Your task to perform on an android device: When is my next meeting? Image 0: 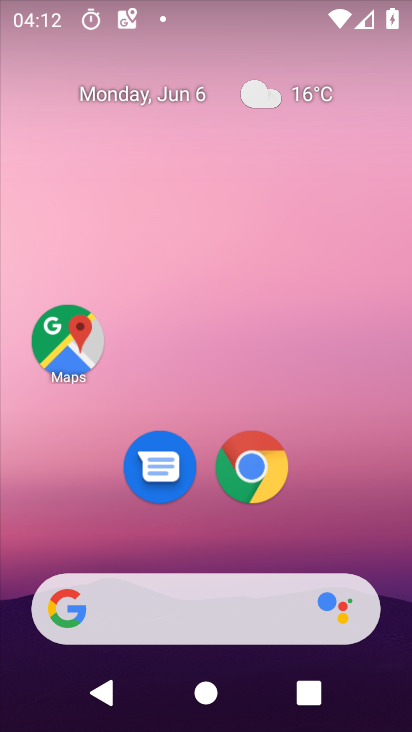
Step 0: press home button
Your task to perform on an android device: When is my next meeting? Image 1: 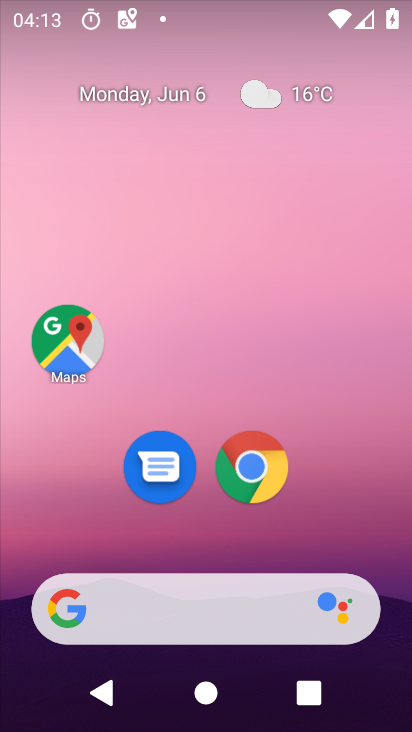
Step 1: drag from (209, 558) to (199, 149)
Your task to perform on an android device: When is my next meeting? Image 2: 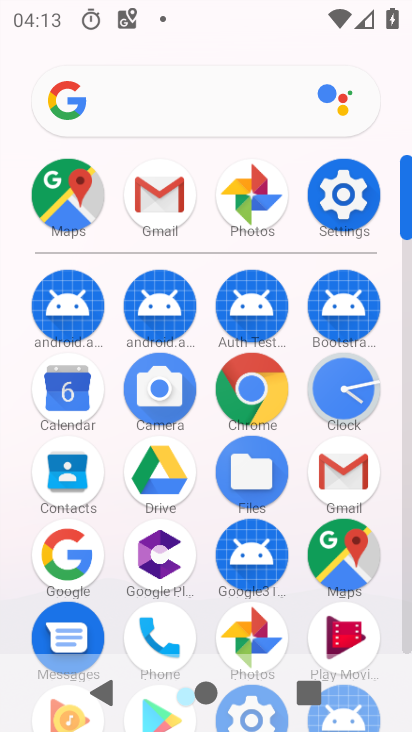
Step 2: click (66, 388)
Your task to perform on an android device: When is my next meeting? Image 3: 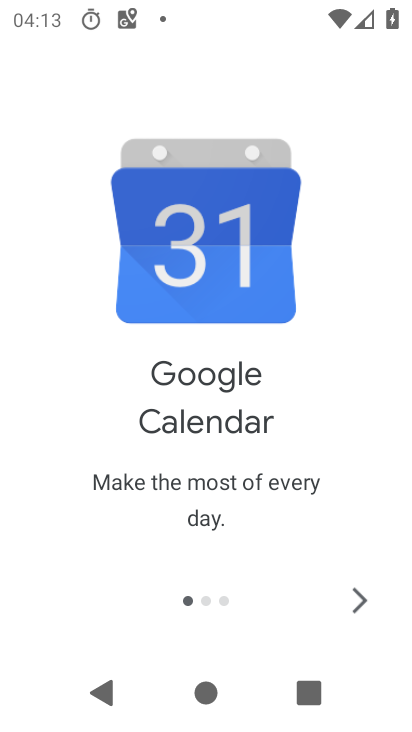
Step 3: click (355, 594)
Your task to perform on an android device: When is my next meeting? Image 4: 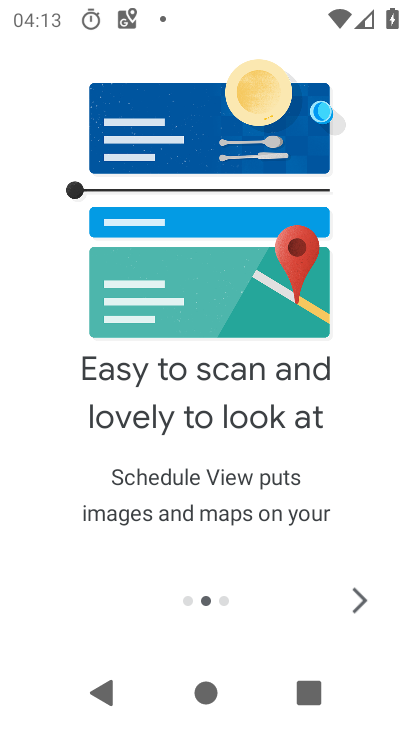
Step 4: click (356, 585)
Your task to perform on an android device: When is my next meeting? Image 5: 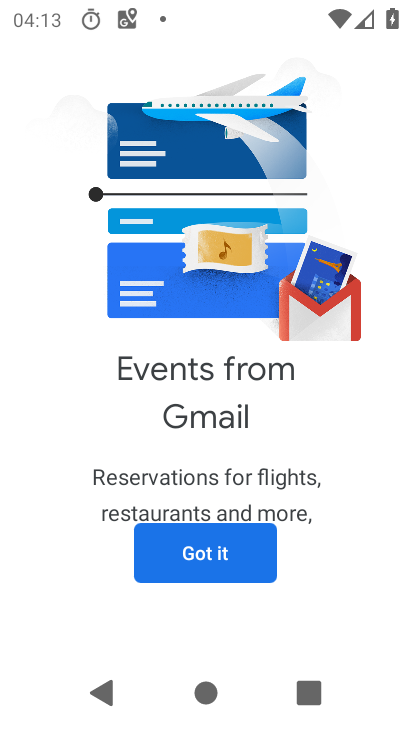
Step 5: click (213, 550)
Your task to perform on an android device: When is my next meeting? Image 6: 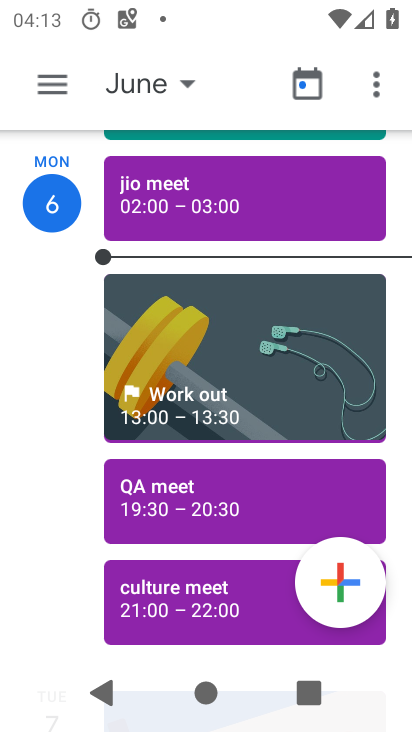
Step 6: task complete